Your task to perform on an android device: turn off wifi Image 0: 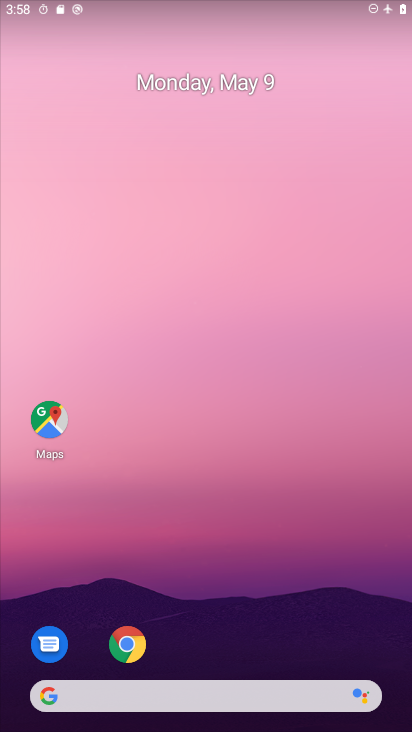
Step 0: drag from (218, 624) to (258, 137)
Your task to perform on an android device: turn off wifi Image 1: 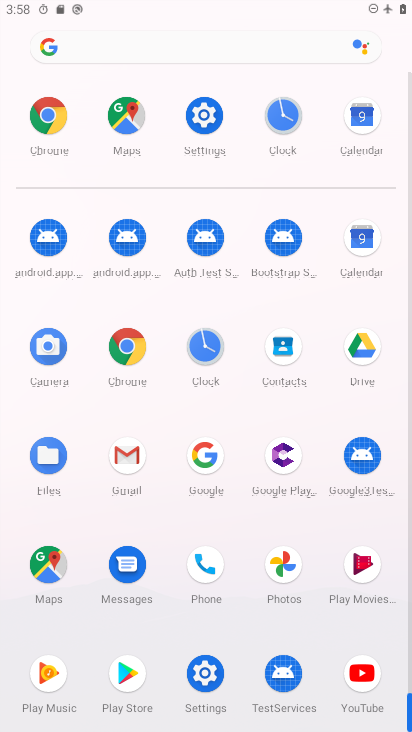
Step 1: click (207, 122)
Your task to perform on an android device: turn off wifi Image 2: 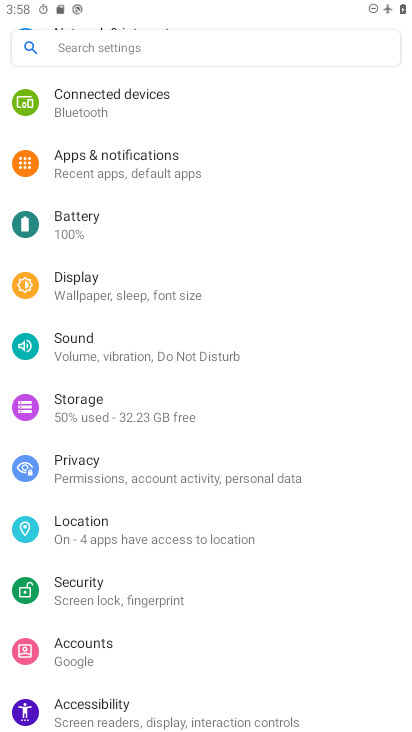
Step 2: drag from (159, 235) to (169, 577)
Your task to perform on an android device: turn off wifi Image 3: 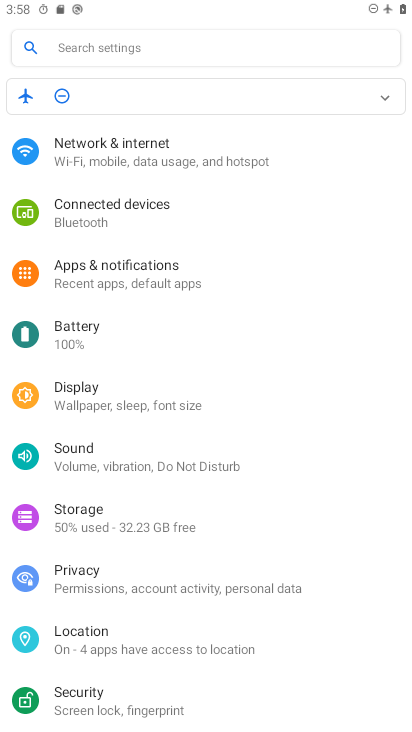
Step 3: click (74, 153)
Your task to perform on an android device: turn off wifi Image 4: 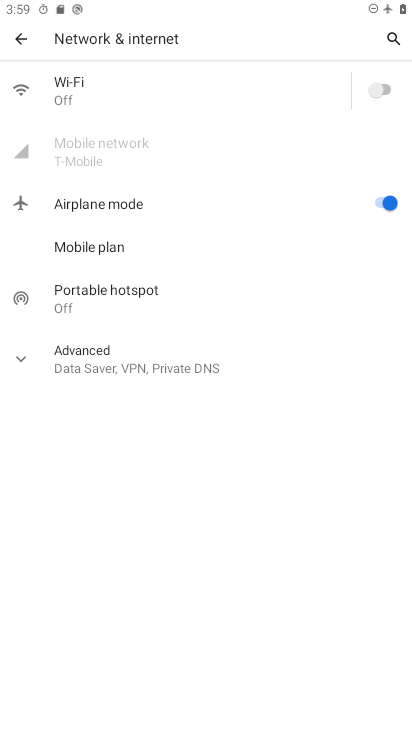
Step 4: task complete